Your task to perform on an android device: turn off improve location accuracy Image 0: 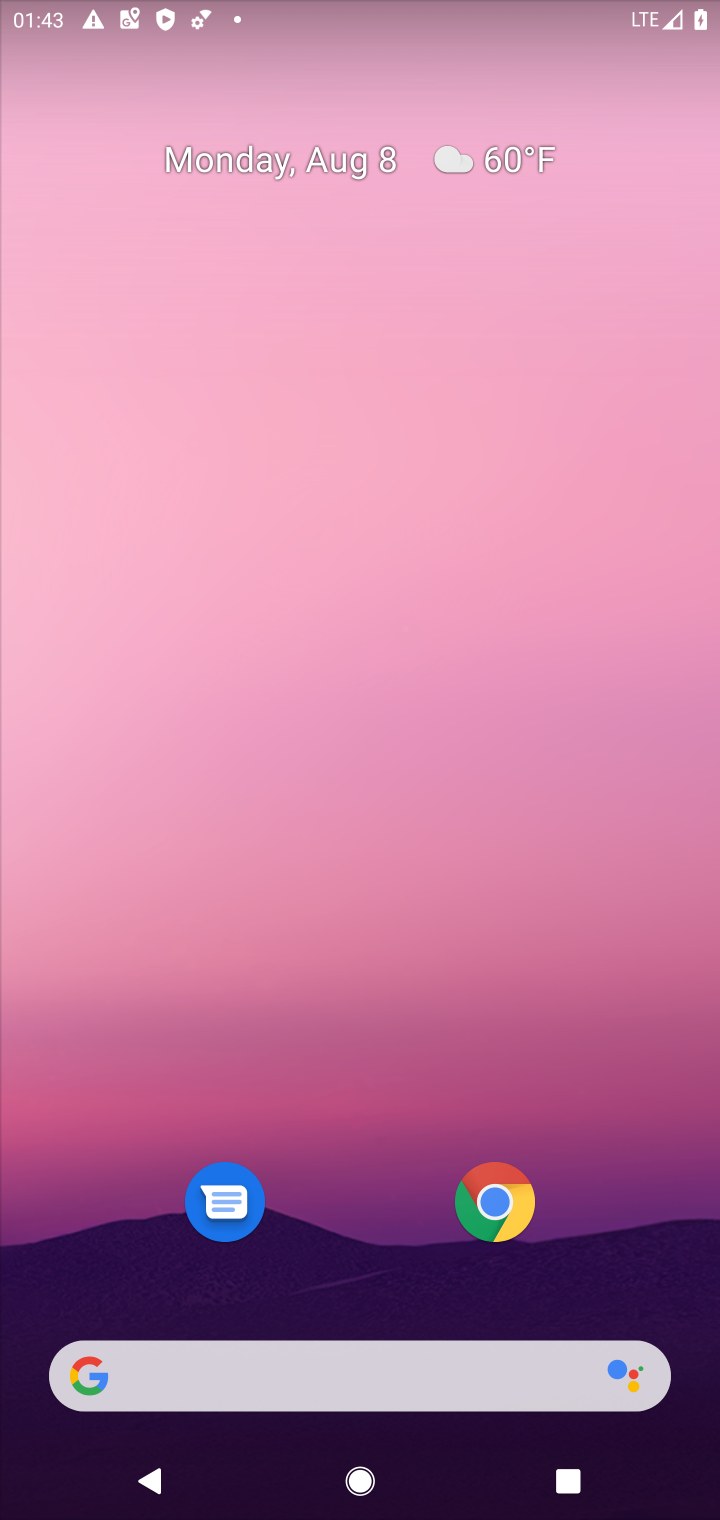
Step 0: drag from (321, 1087) to (10, 198)
Your task to perform on an android device: turn off improve location accuracy Image 1: 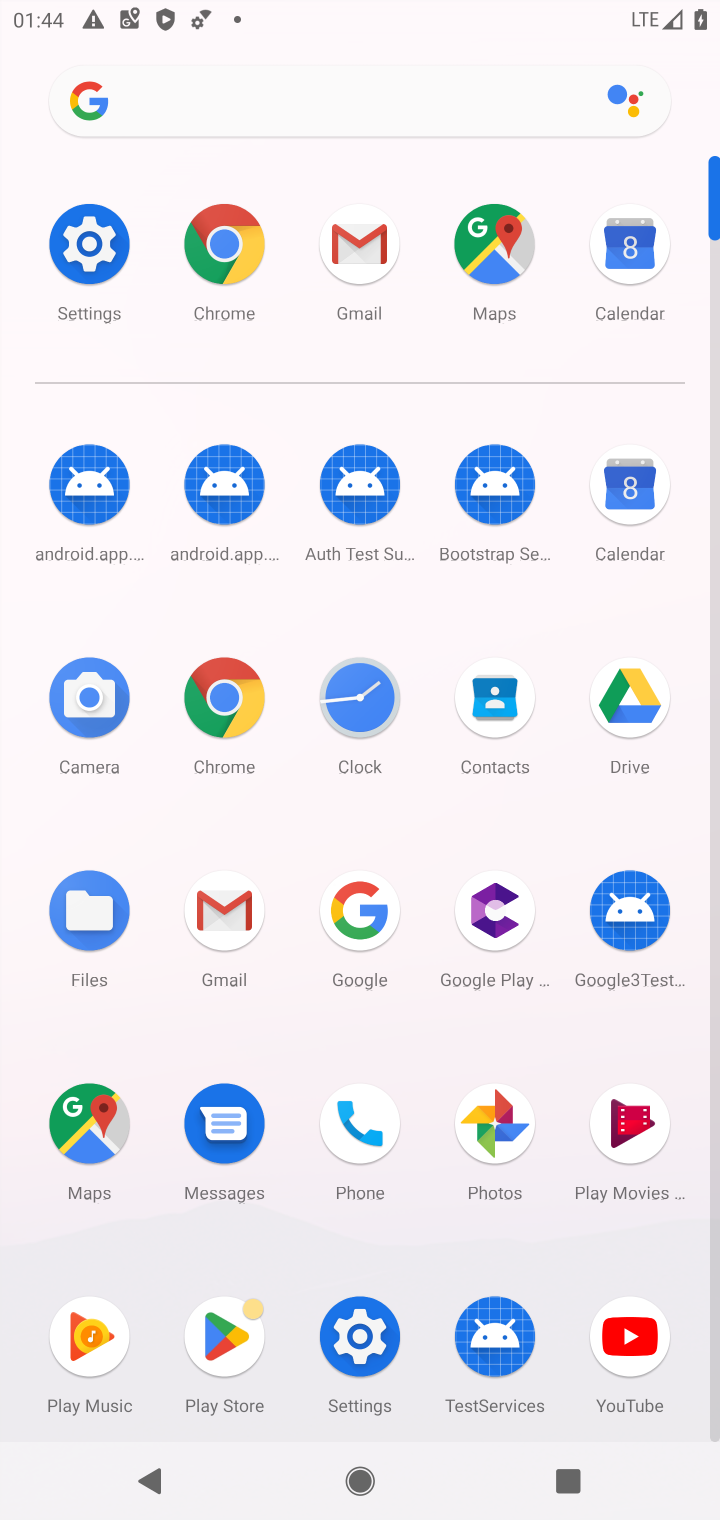
Step 1: click (365, 1323)
Your task to perform on an android device: turn off improve location accuracy Image 2: 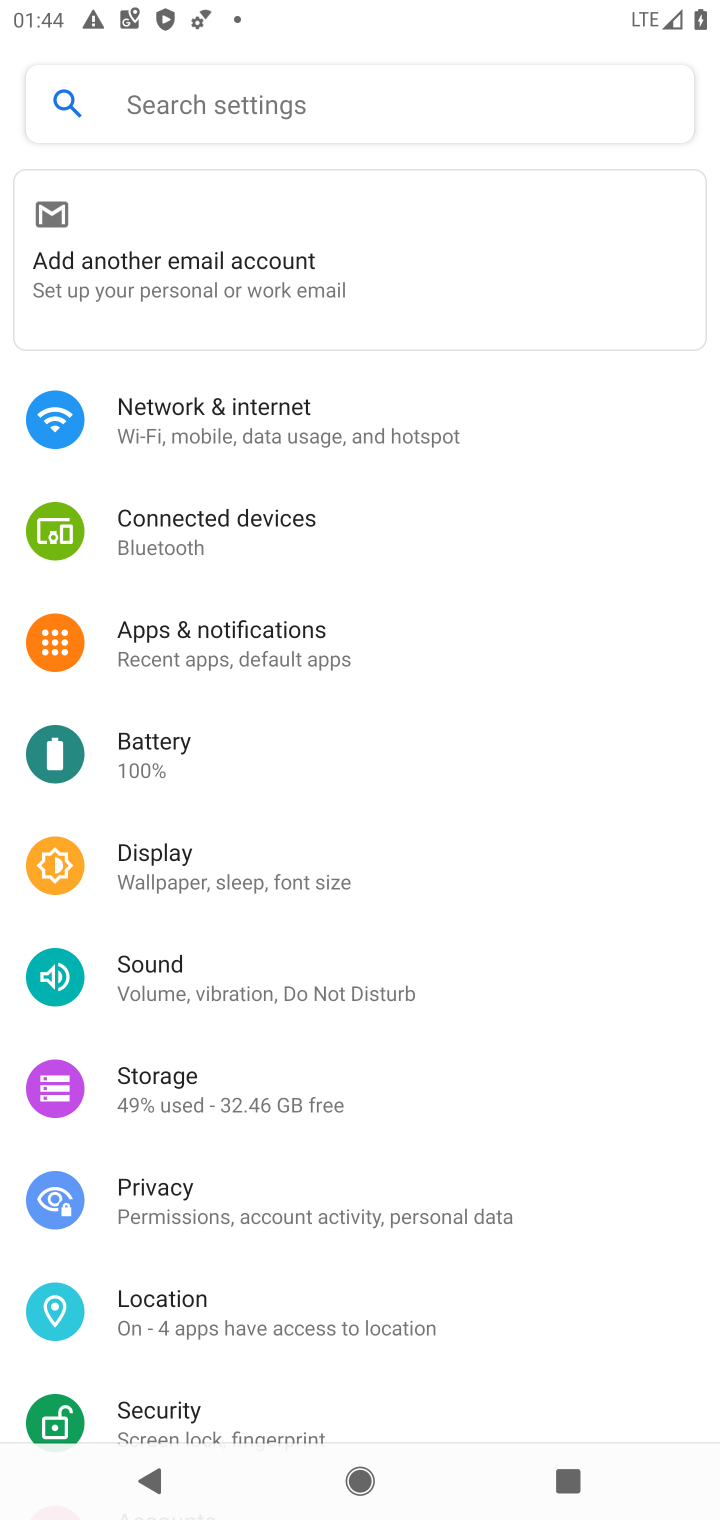
Step 2: click (171, 1302)
Your task to perform on an android device: turn off improve location accuracy Image 3: 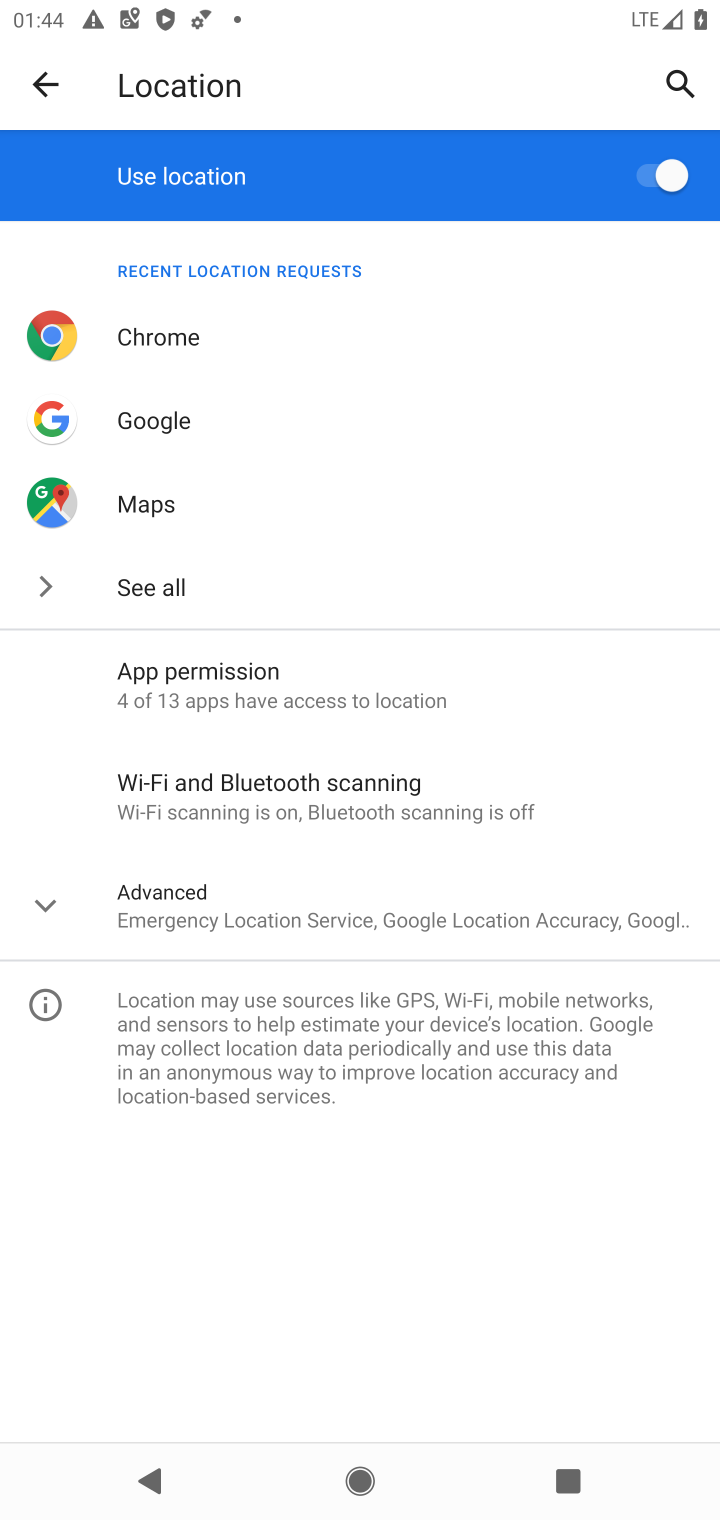
Step 3: click (240, 922)
Your task to perform on an android device: turn off improve location accuracy Image 4: 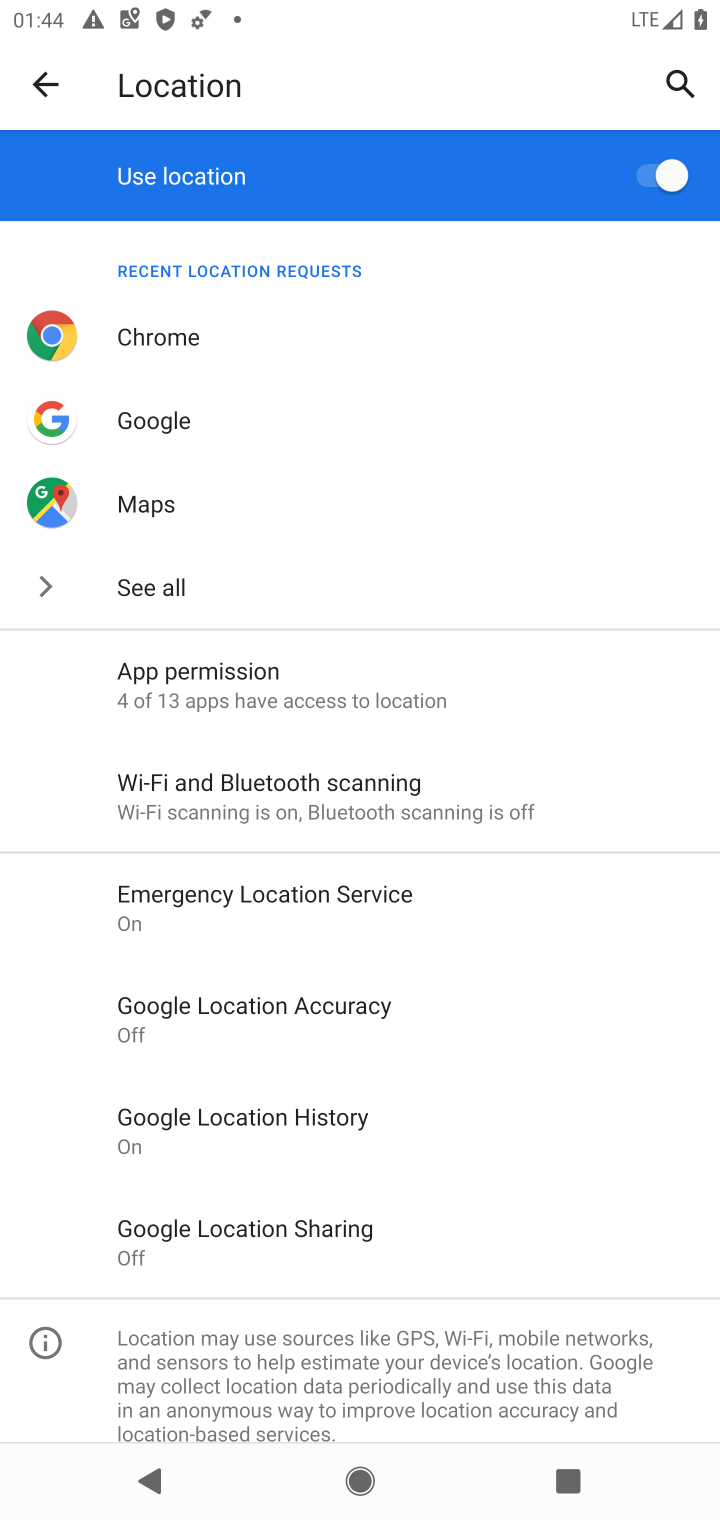
Step 4: click (312, 999)
Your task to perform on an android device: turn off improve location accuracy Image 5: 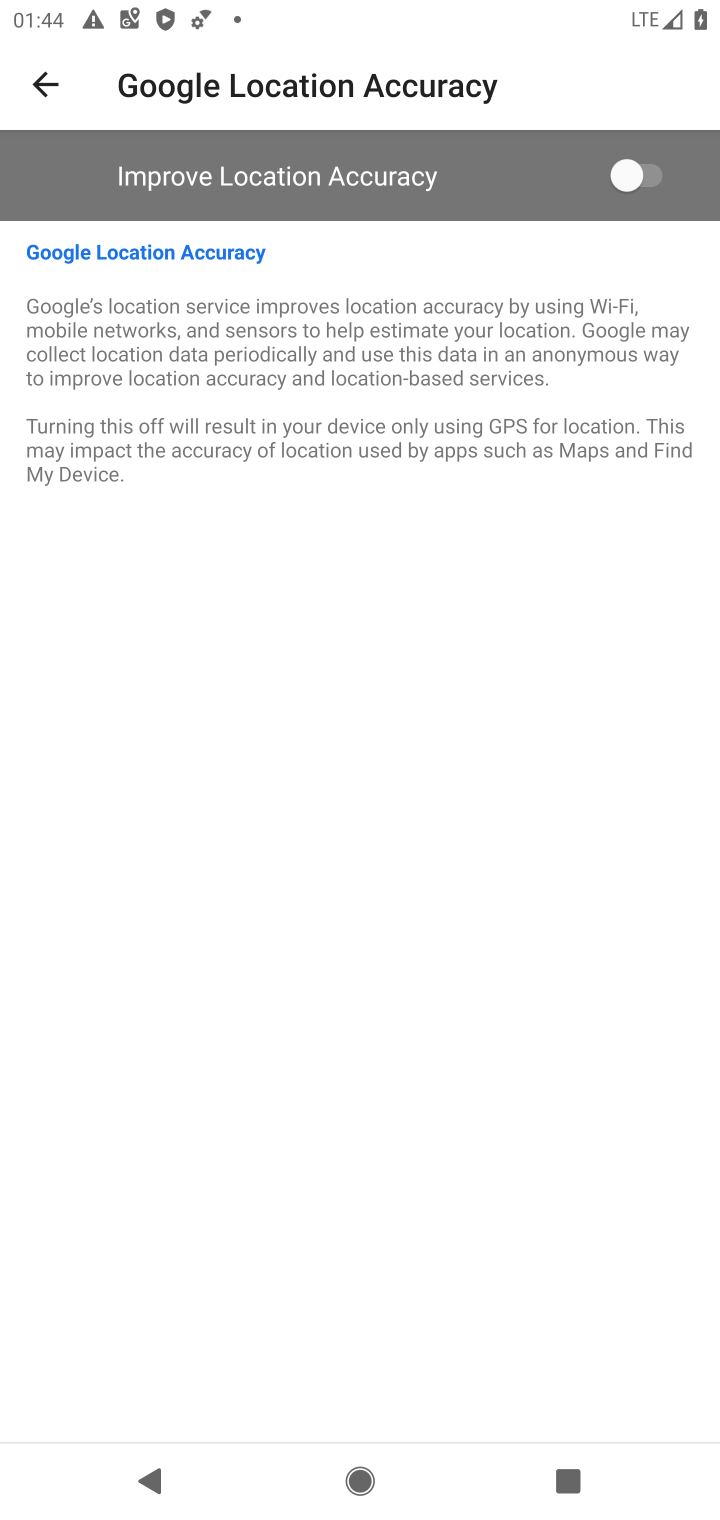
Step 5: task complete